Your task to perform on an android device: Open Chrome and go to settings Image 0: 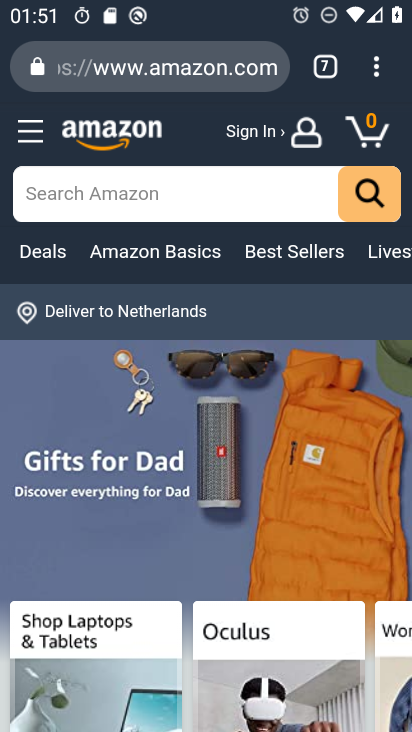
Step 0: click (376, 74)
Your task to perform on an android device: Open Chrome and go to settings Image 1: 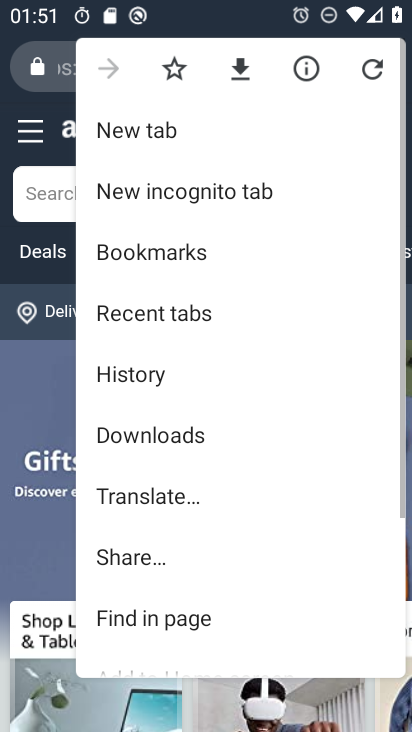
Step 1: drag from (246, 508) to (225, 187)
Your task to perform on an android device: Open Chrome and go to settings Image 2: 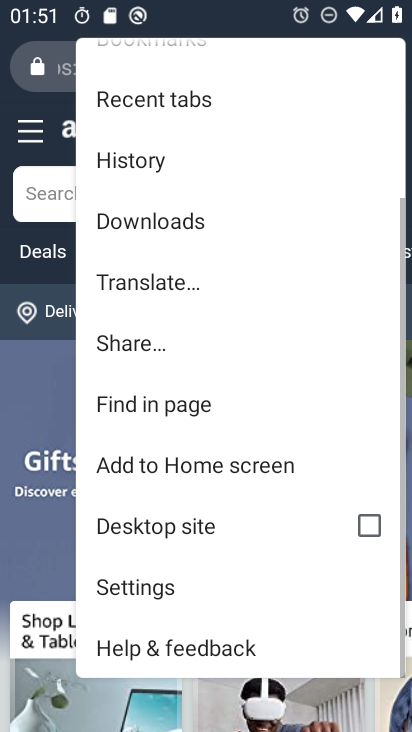
Step 2: click (170, 580)
Your task to perform on an android device: Open Chrome and go to settings Image 3: 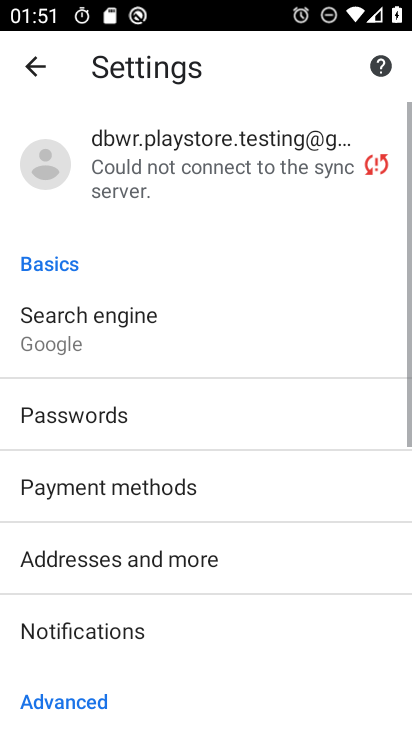
Step 3: task complete